Your task to perform on an android device: Search for sushi restaurants on Maps Image 0: 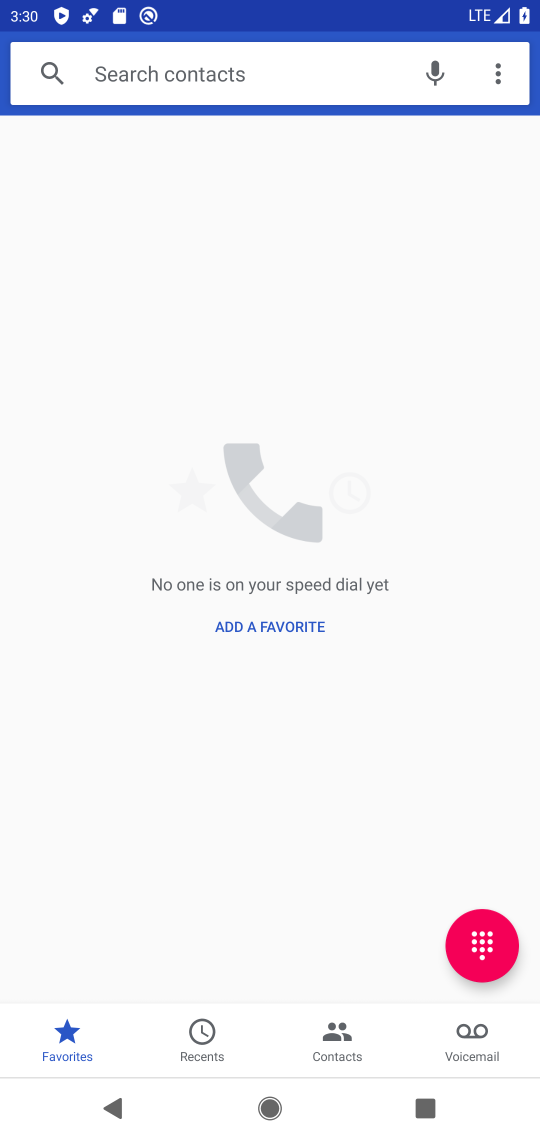
Step 0: press home button
Your task to perform on an android device: Search for sushi restaurants on Maps Image 1: 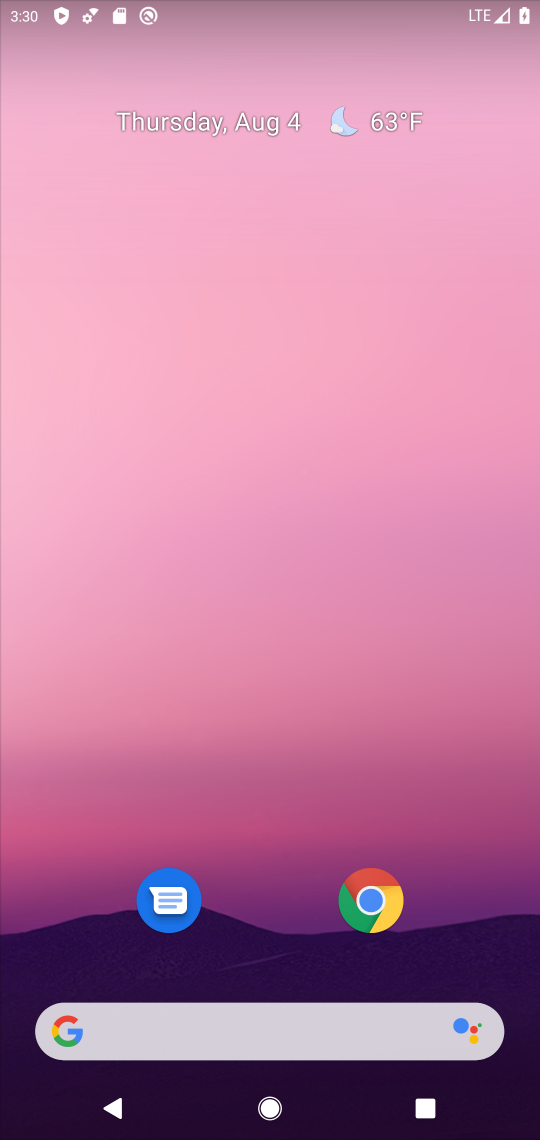
Step 1: drag from (448, 983) to (282, 329)
Your task to perform on an android device: Search for sushi restaurants on Maps Image 2: 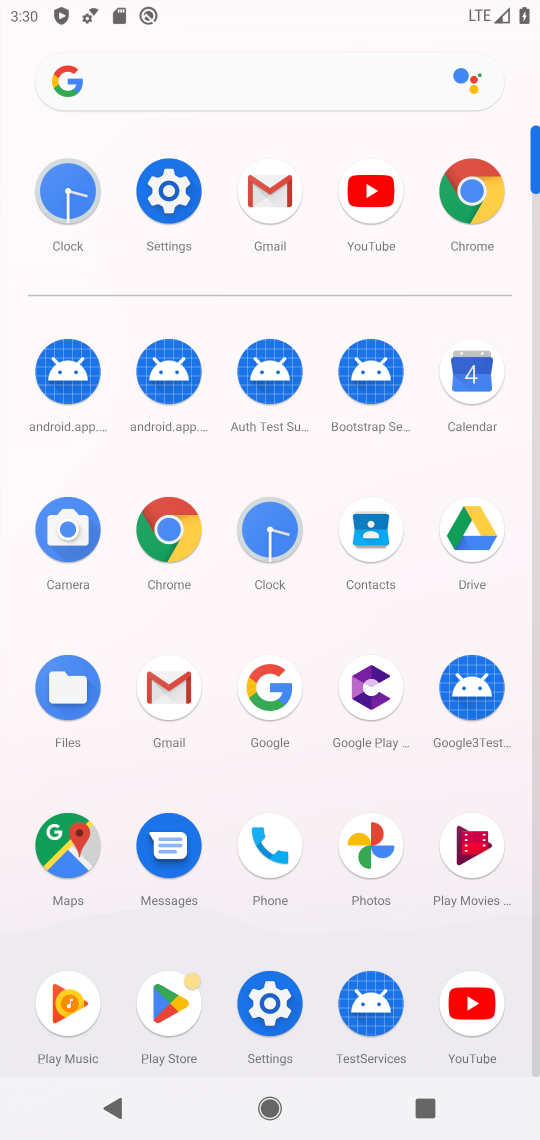
Step 2: click (64, 870)
Your task to perform on an android device: Search for sushi restaurants on Maps Image 3: 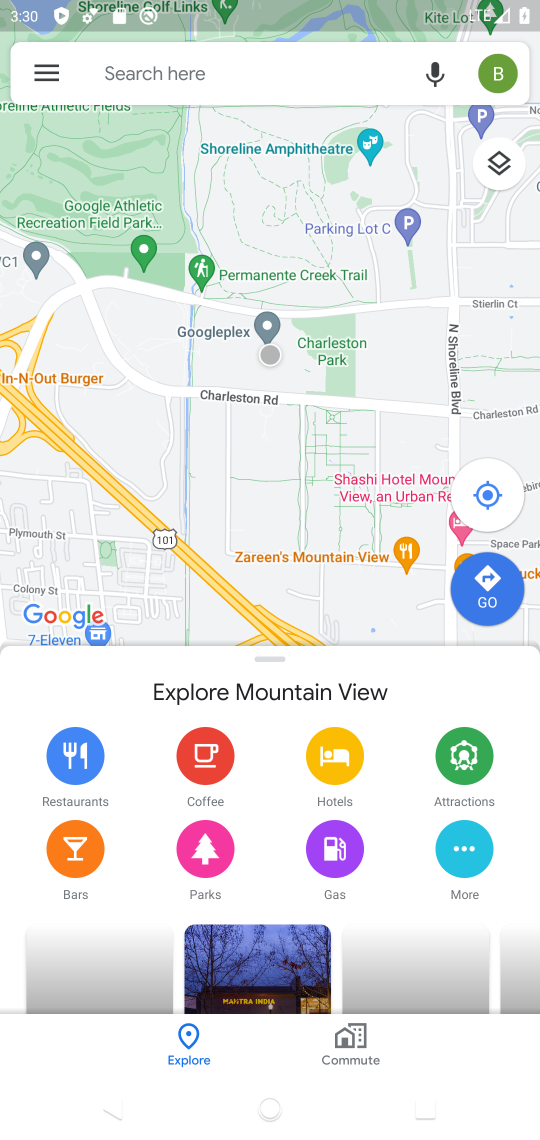
Step 3: click (247, 76)
Your task to perform on an android device: Search for sushi restaurants on Maps Image 4: 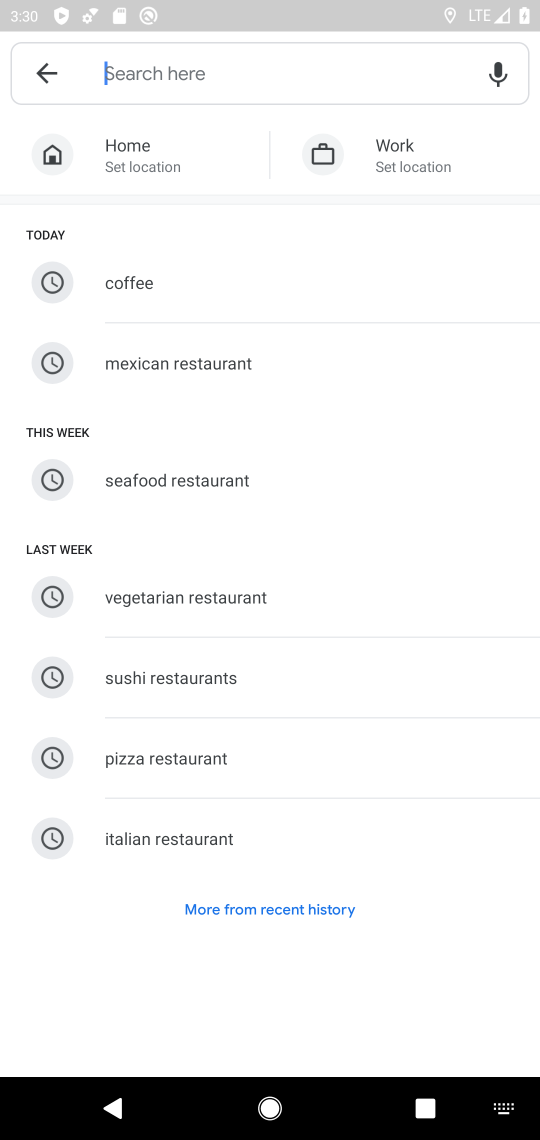
Step 4: click (275, 683)
Your task to perform on an android device: Search for sushi restaurants on Maps Image 5: 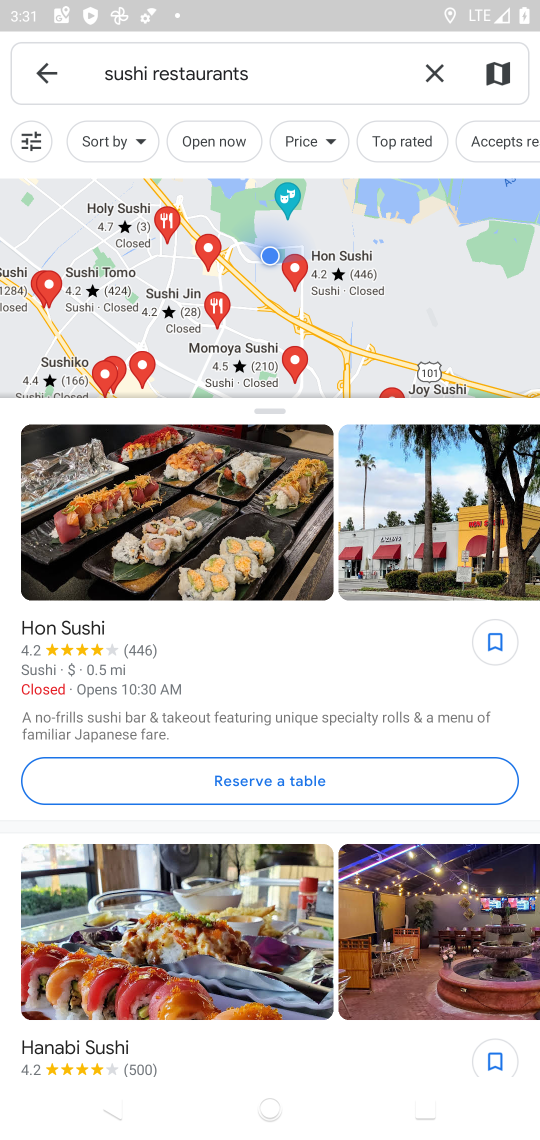
Step 5: task complete